Your task to perform on an android device: toggle show notifications on the lock screen Image 0: 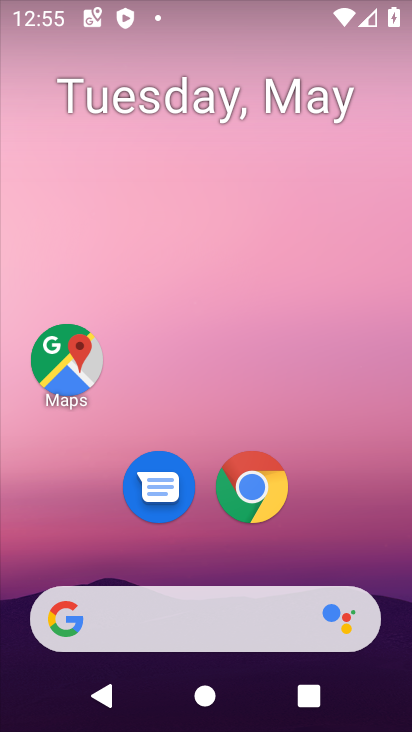
Step 0: drag from (322, 548) to (277, 50)
Your task to perform on an android device: toggle show notifications on the lock screen Image 1: 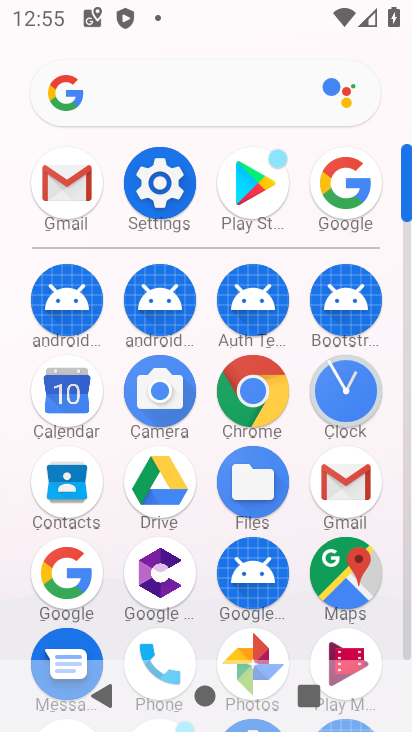
Step 1: click (156, 180)
Your task to perform on an android device: toggle show notifications on the lock screen Image 2: 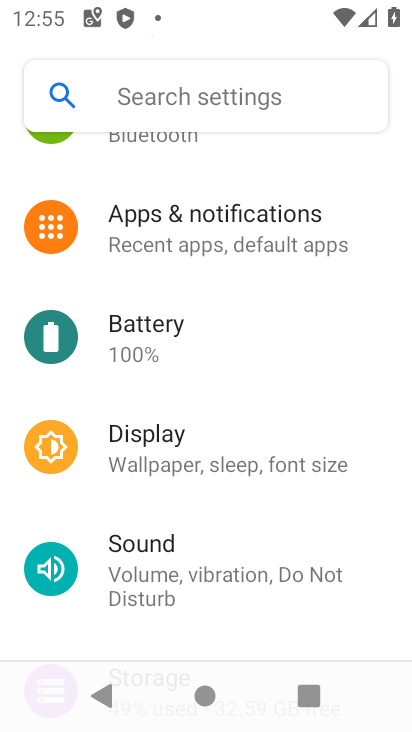
Step 2: click (272, 231)
Your task to perform on an android device: toggle show notifications on the lock screen Image 3: 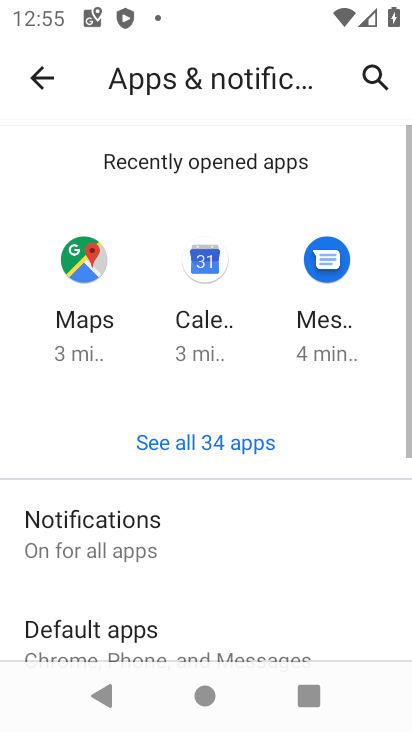
Step 3: drag from (288, 559) to (248, 233)
Your task to perform on an android device: toggle show notifications on the lock screen Image 4: 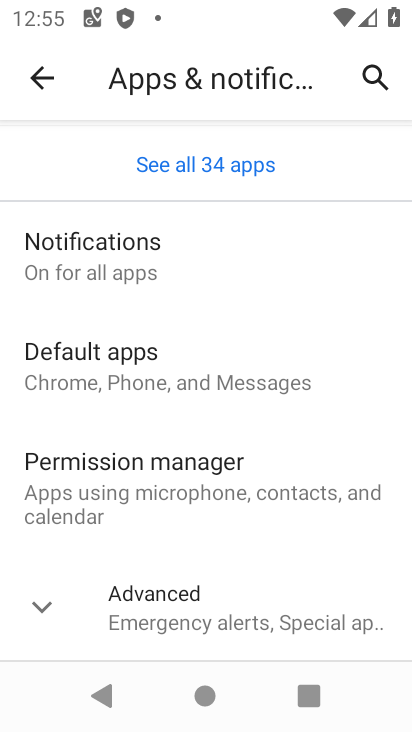
Step 4: drag from (260, 574) to (259, 365)
Your task to perform on an android device: toggle show notifications on the lock screen Image 5: 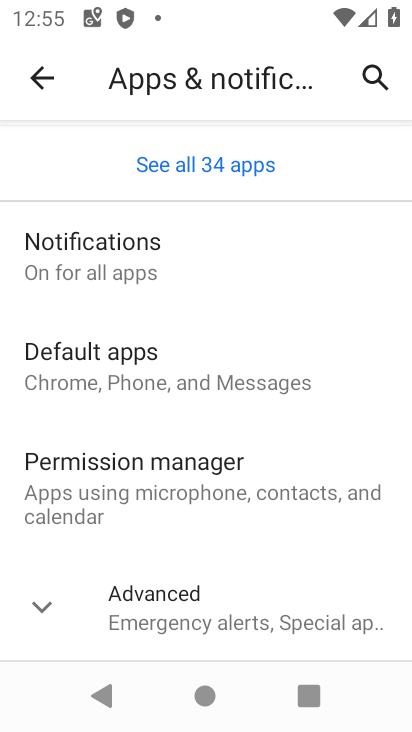
Step 5: click (119, 266)
Your task to perform on an android device: toggle show notifications on the lock screen Image 6: 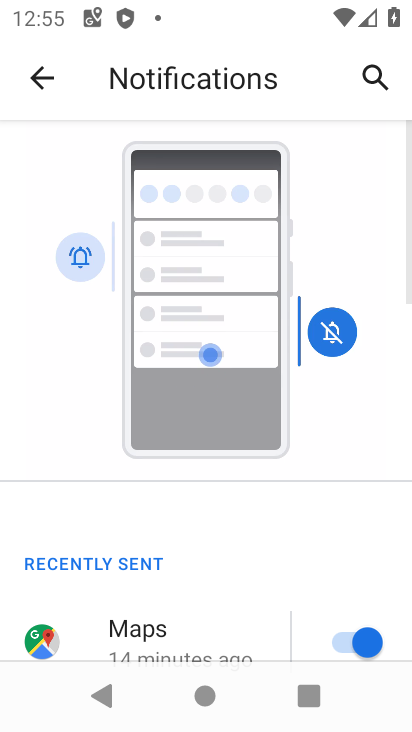
Step 6: drag from (272, 558) to (258, 228)
Your task to perform on an android device: toggle show notifications on the lock screen Image 7: 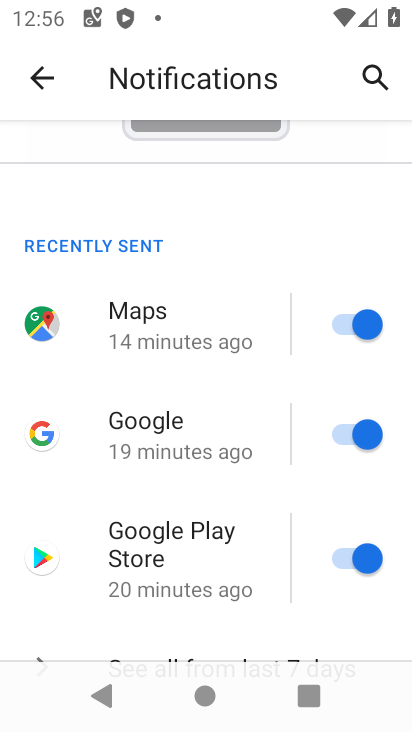
Step 7: drag from (207, 609) to (252, 273)
Your task to perform on an android device: toggle show notifications on the lock screen Image 8: 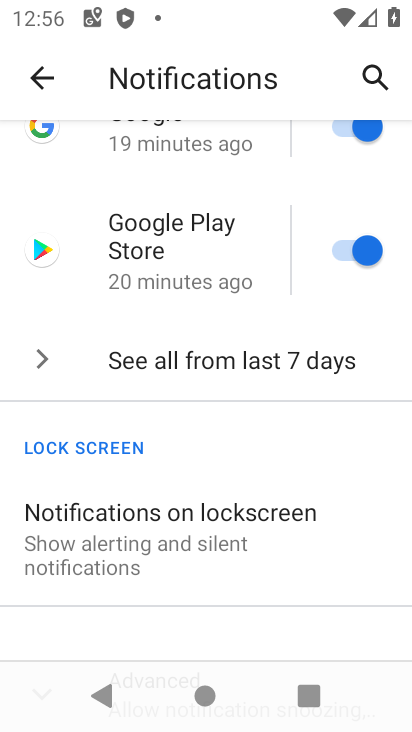
Step 8: click (197, 535)
Your task to perform on an android device: toggle show notifications on the lock screen Image 9: 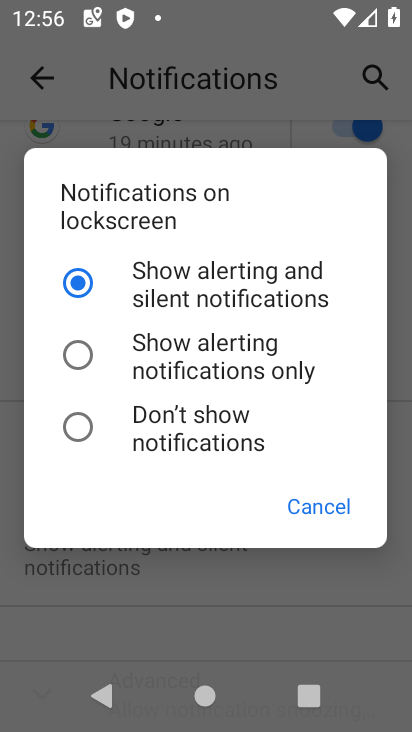
Step 9: click (71, 353)
Your task to perform on an android device: toggle show notifications on the lock screen Image 10: 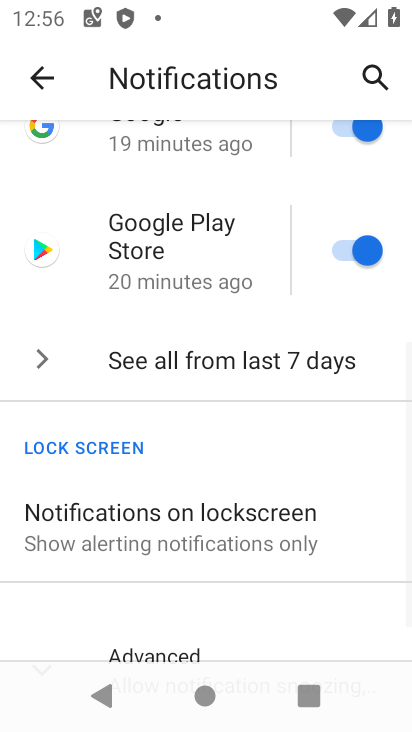
Step 10: task complete